Your task to perform on an android device: turn off notifications in google photos Image 0: 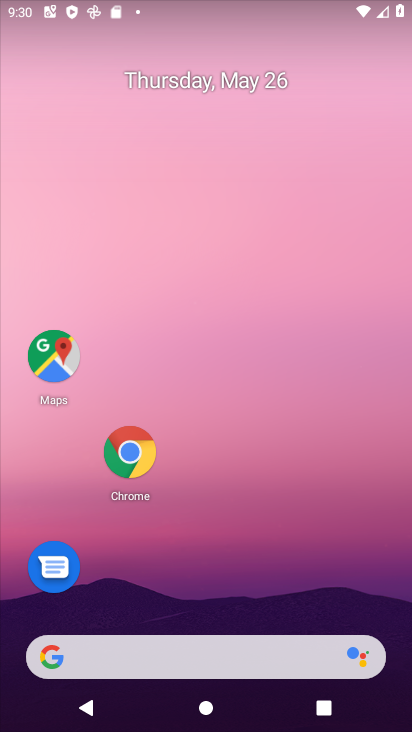
Step 0: press home button
Your task to perform on an android device: turn off notifications in google photos Image 1: 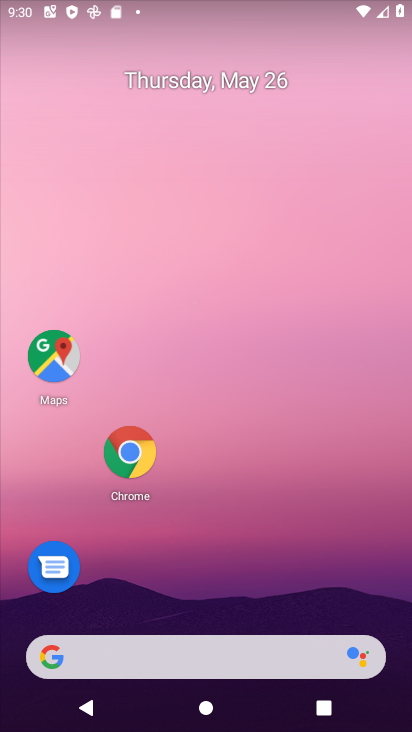
Step 1: drag from (172, 651) to (344, 97)
Your task to perform on an android device: turn off notifications in google photos Image 2: 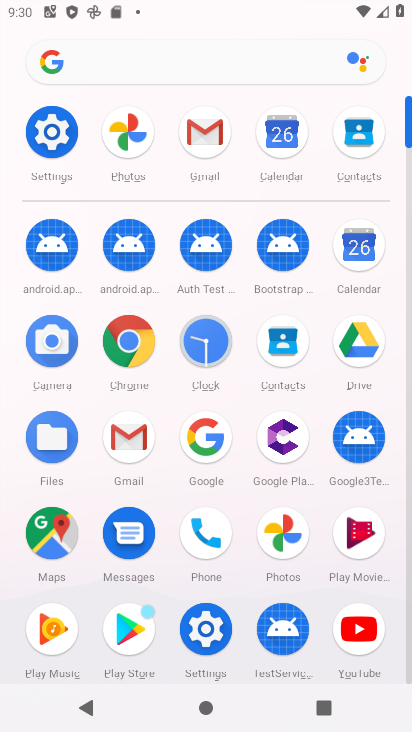
Step 2: click (280, 533)
Your task to perform on an android device: turn off notifications in google photos Image 3: 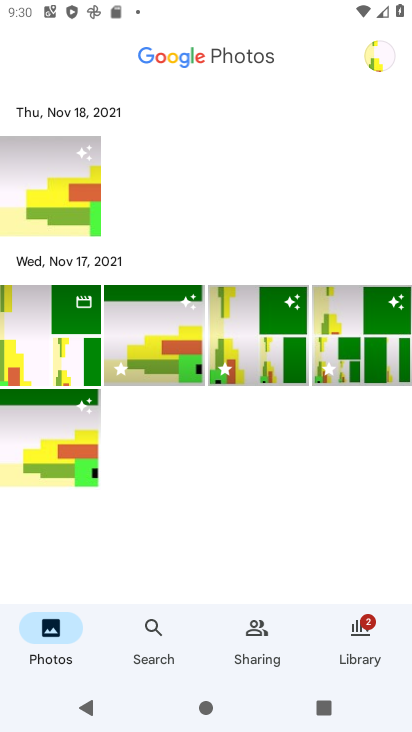
Step 3: click (378, 56)
Your task to perform on an android device: turn off notifications in google photos Image 4: 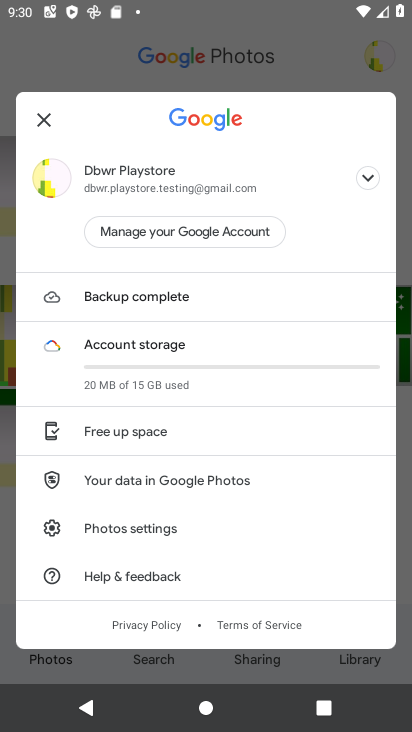
Step 4: click (155, 529)
Your task to perform on an android device: turn off notifications in google photos Image 5: 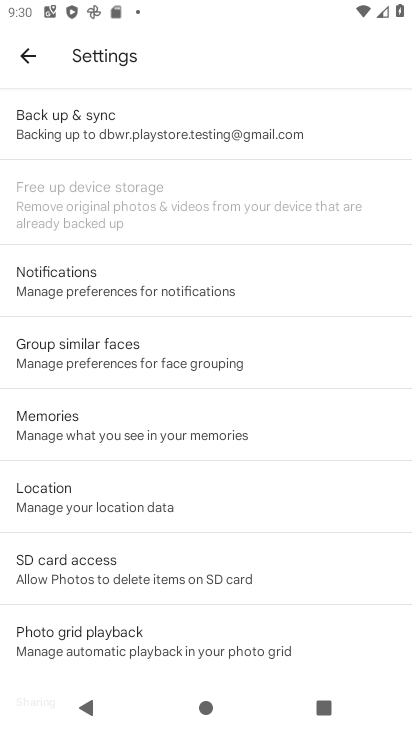
Step 5: click (109, 287)
Your task to perform on an android device: turn off notifications in google photos Image 6: 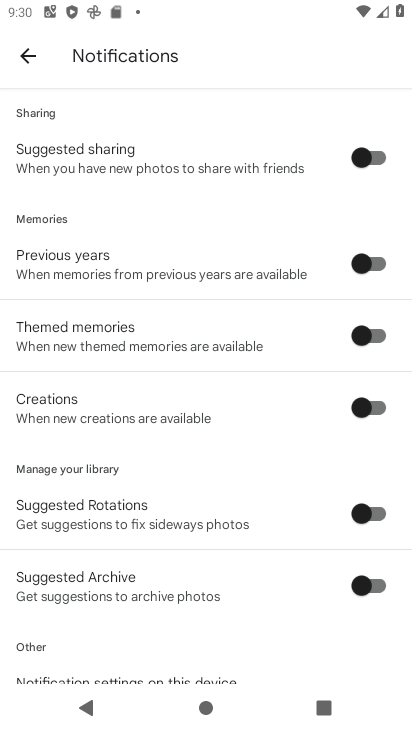
Step 6: drag from (183, 655) to (411, 176)
Your task to perform on an android device: turn off notifications in google photos Image 7: 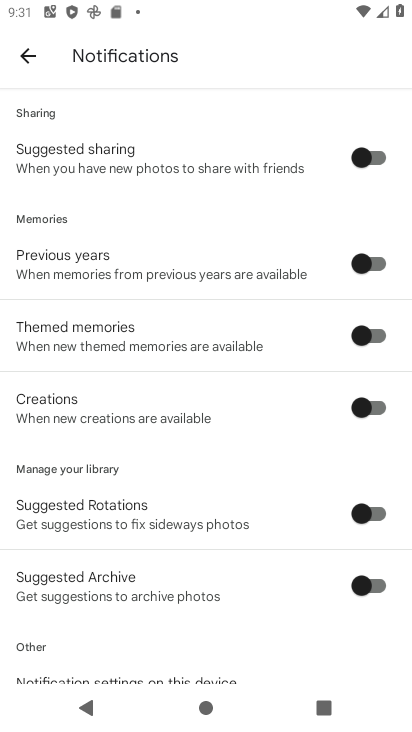
Step 7: drag from (178, 663) to (328, 200)
Your task to perform on an android device: turn off notifications in google photos Image 8: 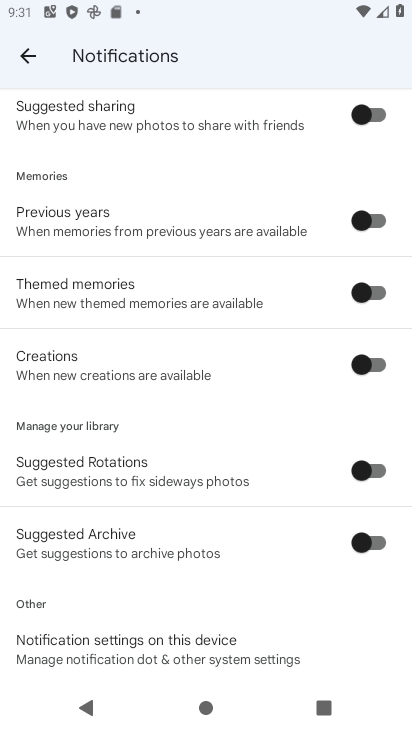
Step 8: click (150, 649)
Your task to perform on an android device: turn off notifications in google photos Image 9: 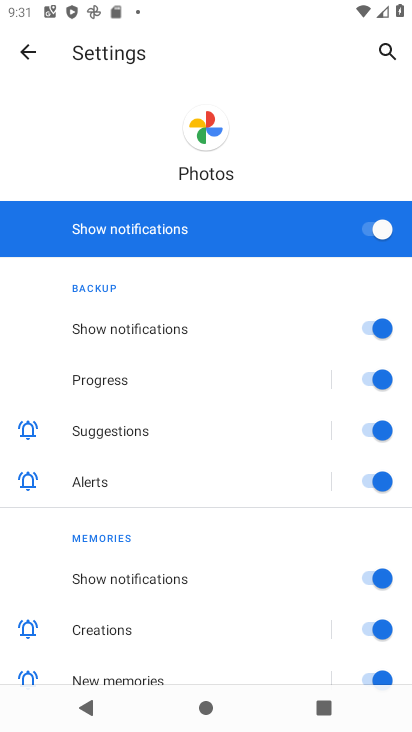
Step 9: click (372, 228)
Your task to perform on an android device: turn off notifications in google photos Image 10: 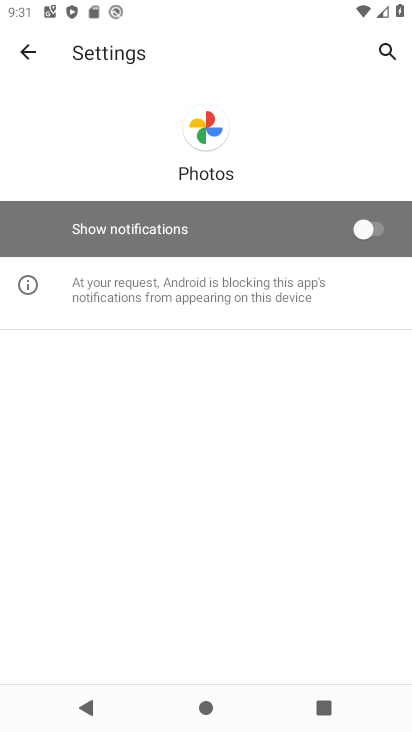
Step 10: task complete